Your task to perform on an android device: add a contact Image 0: 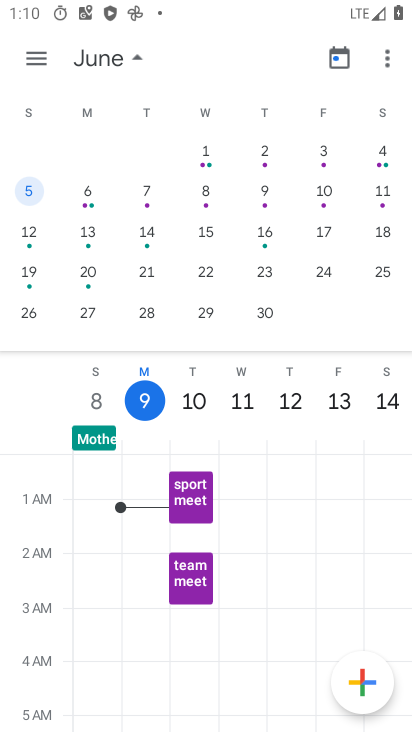
Step 0: press home button
Your task to perform on an android device: add a contact Image 1: 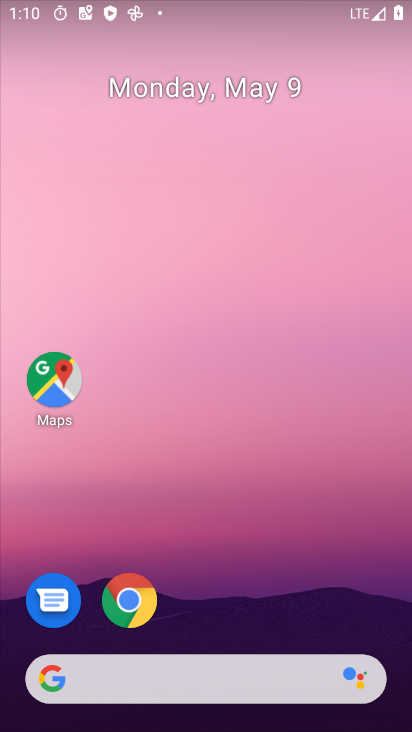
Step 1: drag from (275, 585) to (258, 15)
Your task to perform on an android device: add a contact Image 2: 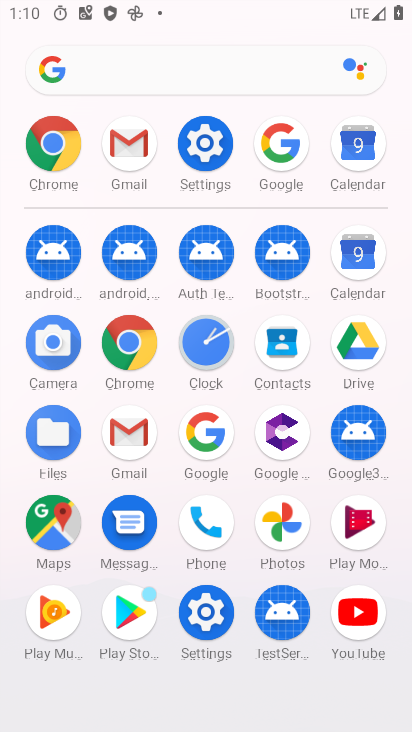
Step 2: click (283, 361)
Your task to perform on an android device: add a contact Image 3: 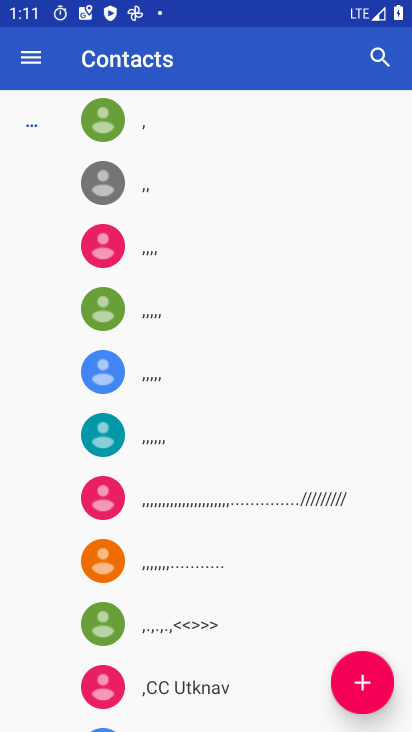
Step 3: click (372, 684)
Your task to perform on an android device: add a contact Image 4: 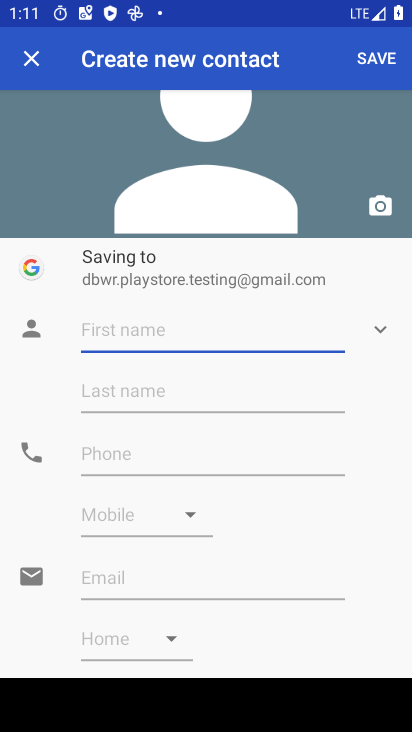
Step 4: click (190, 344)
Your task to perform on an android device: add a contact Image 5: 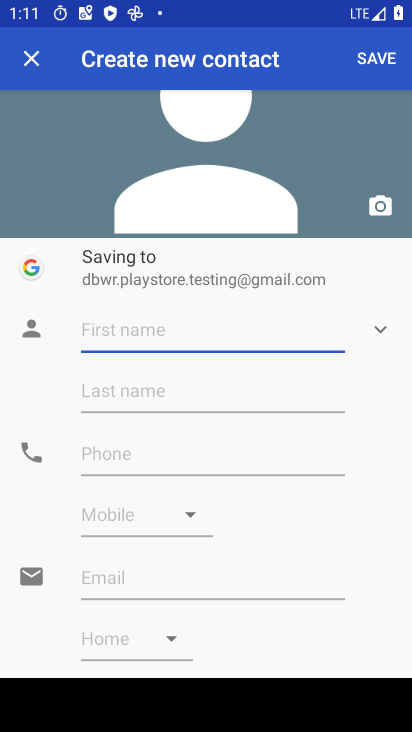
Step 5: click (182, 325)
Your task to perform on an android device: add a contact Image 6: 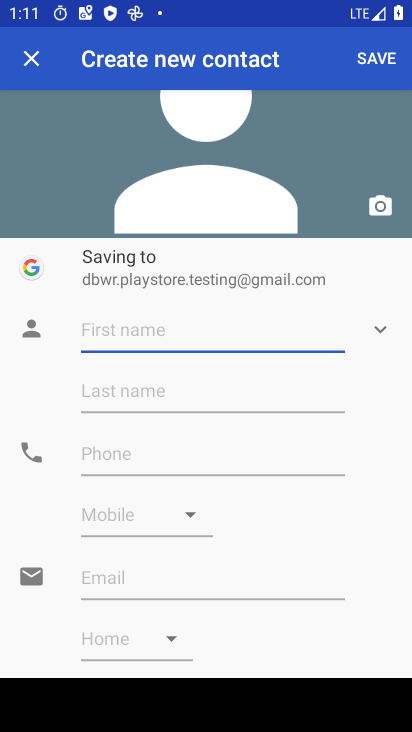
Step 6: click (175, 331)
Your task to perform on an android device: add a contact Image 7: 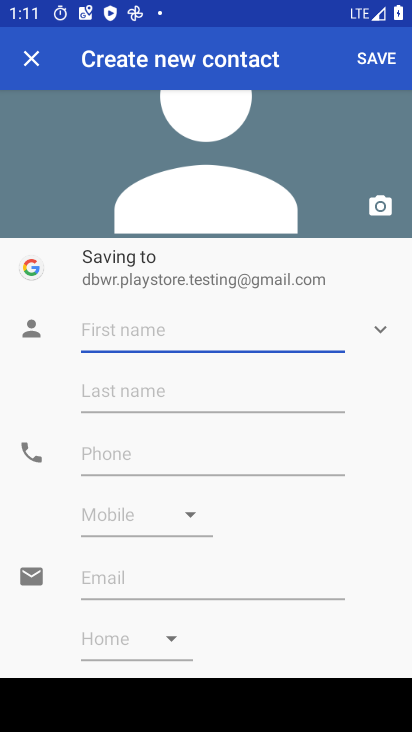
Step 7: type "httdjhfjh"
Your task to perform on an android device: add a contact Image 8: 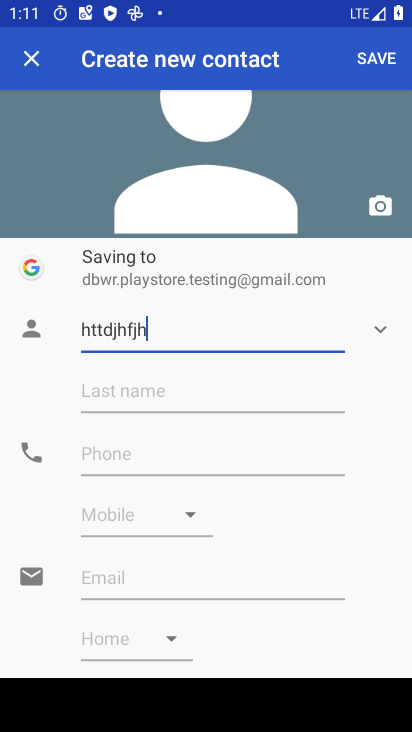
Step 8: type ""
Your task to perform on an android device: add a contact Image 9: 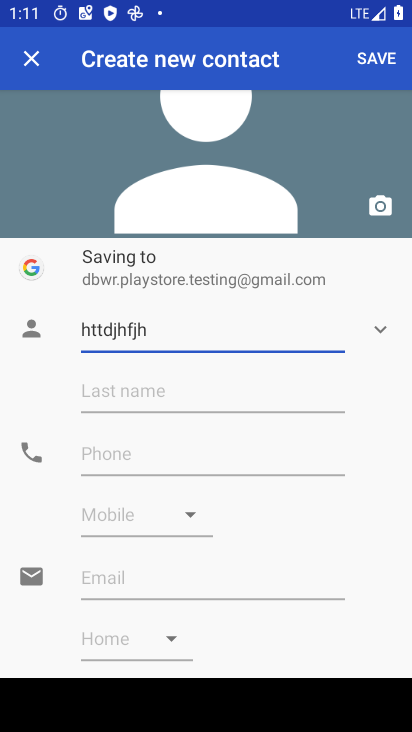
Step 9: click (364, 67)
Your task to perform on an android device: add a contact Image 10: 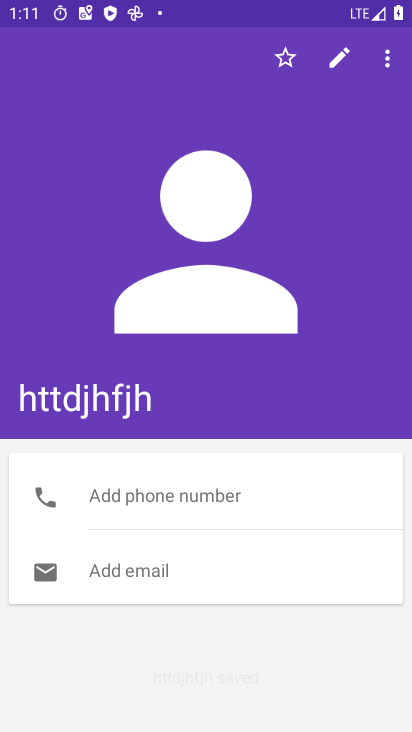
Step 10: task complete